Your task to perform on an android device: Search for a coffee table on IKEA Image 0: 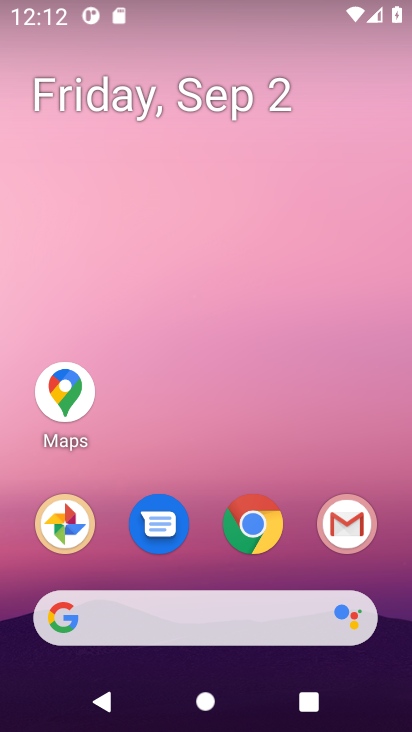
Step 0: press home button
Your task to perform on an android device: Search for a coffee table on IKEA Image 1: 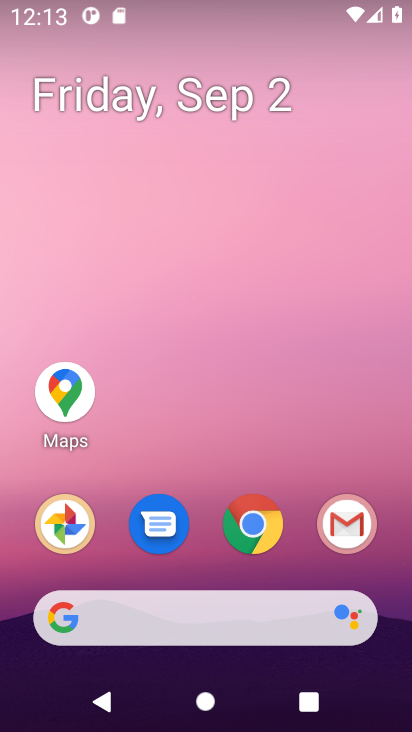
Step 1: click (256, 608)
Your task to perform on an android device: Search for a coffee table on IKEA Image 2: 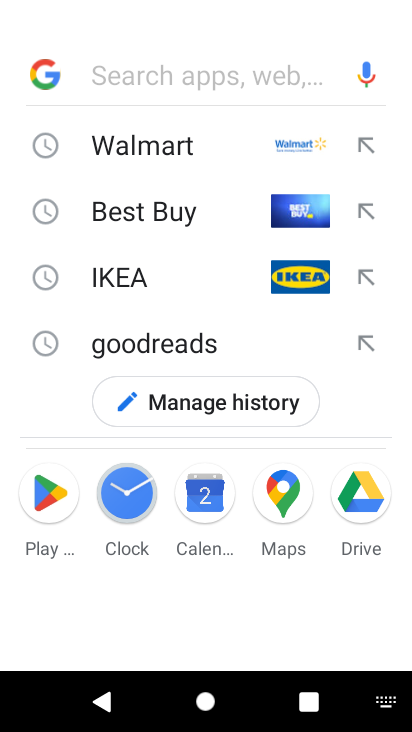
Step 2: press enter
Your task to perform on an android device: Search for a coffee table on IKEA Image 3: 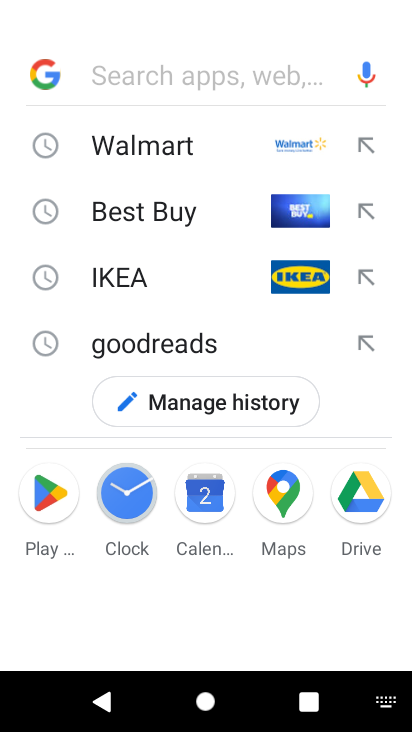
Step 3: type "ikea"
Your task to perform on an android device: Search for a coffee table on IKEA Image 4: 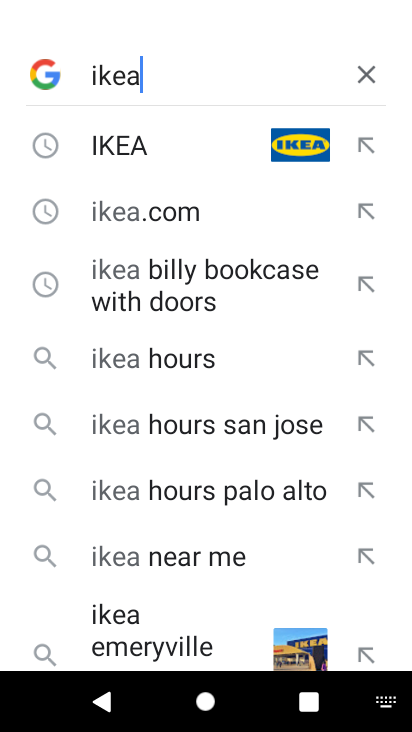
Step 4: click (146, 147)
Your task to perform on an android device: Search for a coffee table on IKEA Image 5: 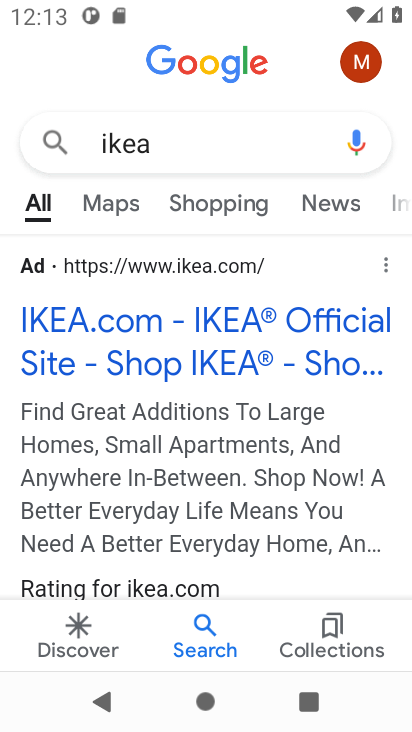
Step 5: click (208, 327)
Your task to perform on an android device: Search for a coffee table on IKEA Image 6: 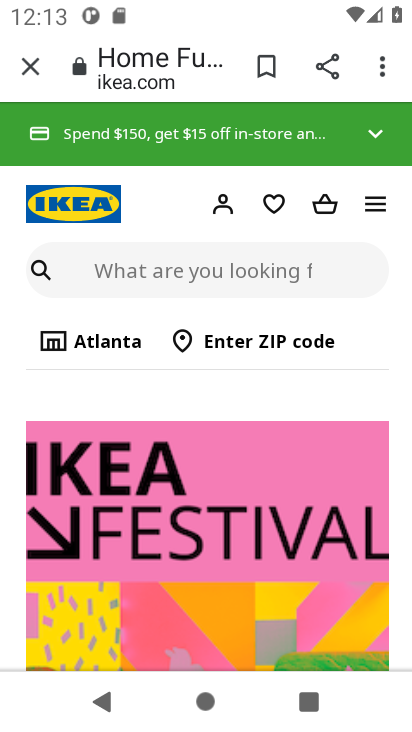
Step 6: click (270, 264)
Your task to perform on an android device: Search for a coffee table on IKEA Image 7: 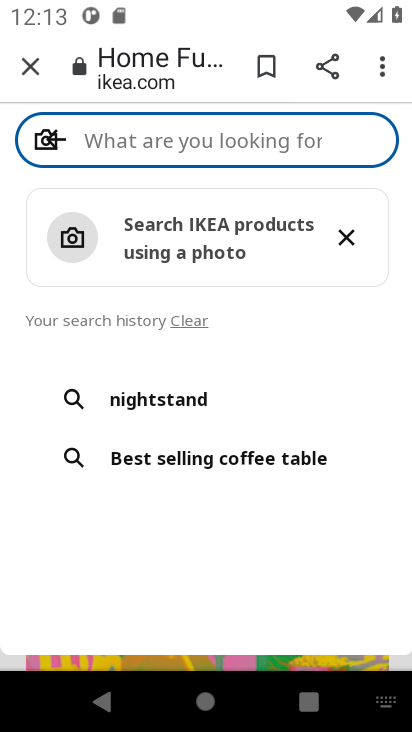
Step 7: press enter
Your task to perform on an android device: Search for a coffee table on IKEA Image 8: 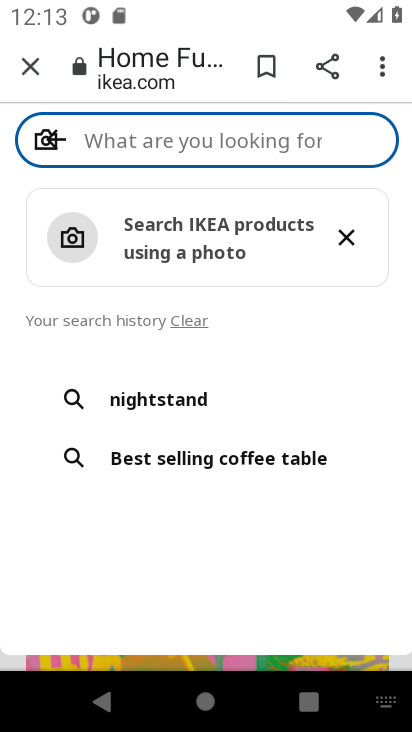
Step 8: type "coffee table"
Your task to perform on an android device: Search for a coffee table on IKEA Image 9: 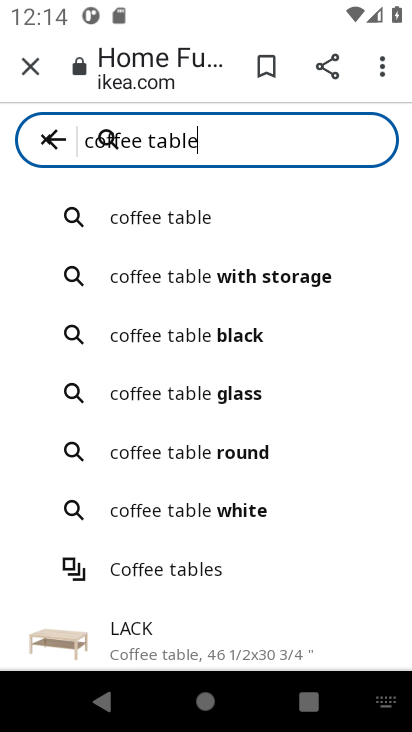
Step 9: click (205, 221)
Your task to perform on an android device: Search for a coffee table on IKEA Image 10: 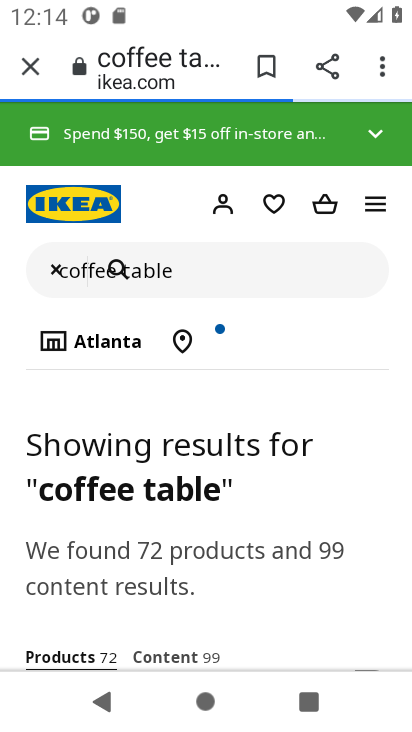
Step 10: task complete